Your task to perform on an android device: Search for sushi restaurants on Maps Image 0: 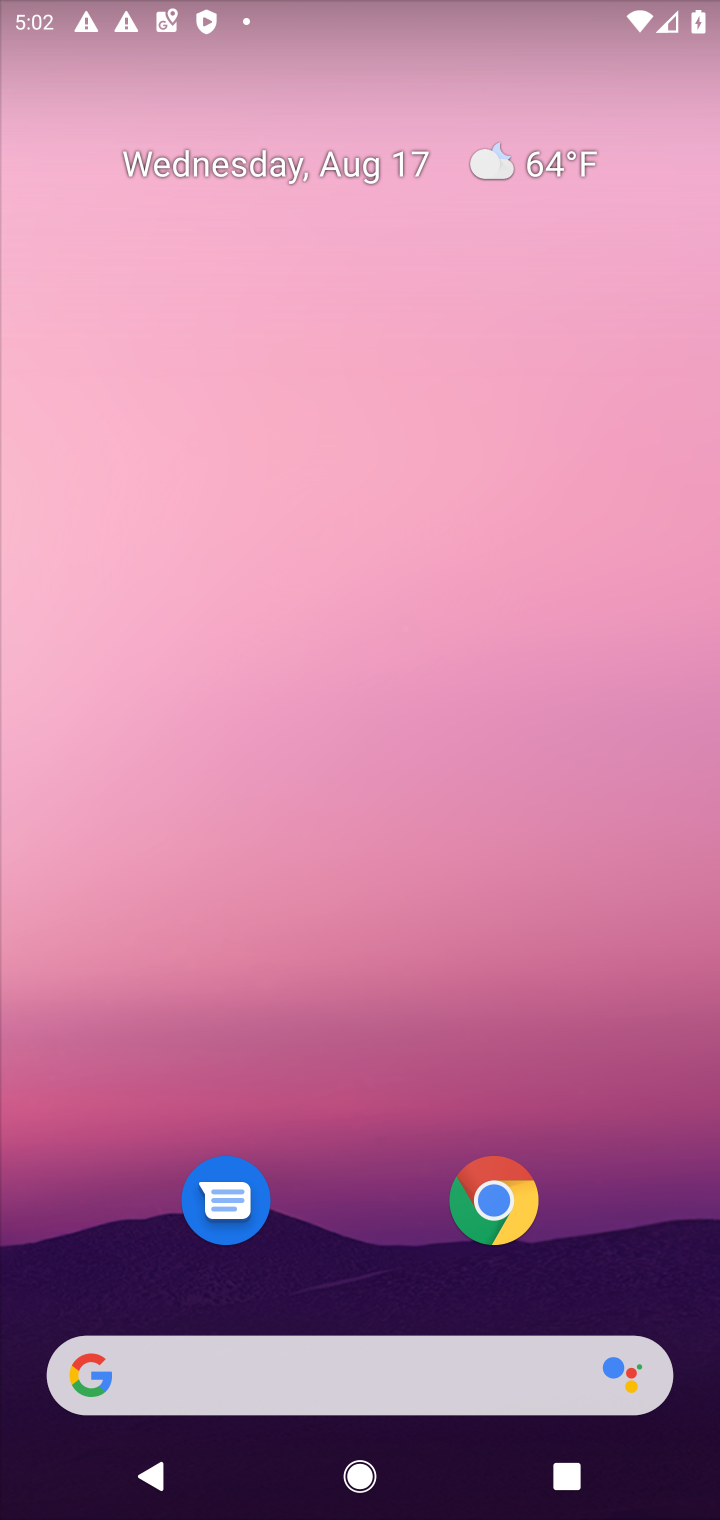
Step 0: press home button
Your task to perform on an android device: Search for sushi restaurants on Maps Image 1: 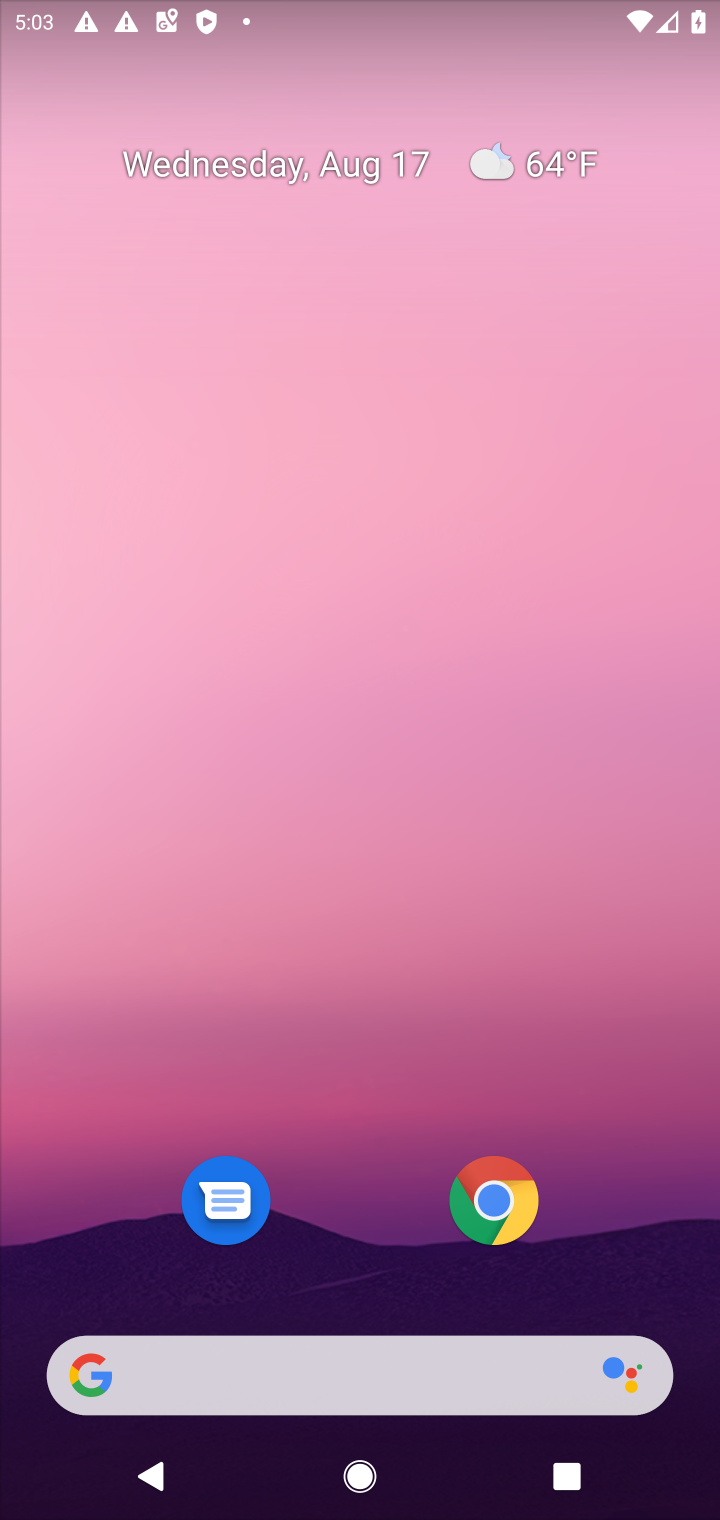
Step 1: drag from (339, 1293) to (350, 201)
Your task to perform on an android device: Search for sushi restaurants on Maps Image 2: 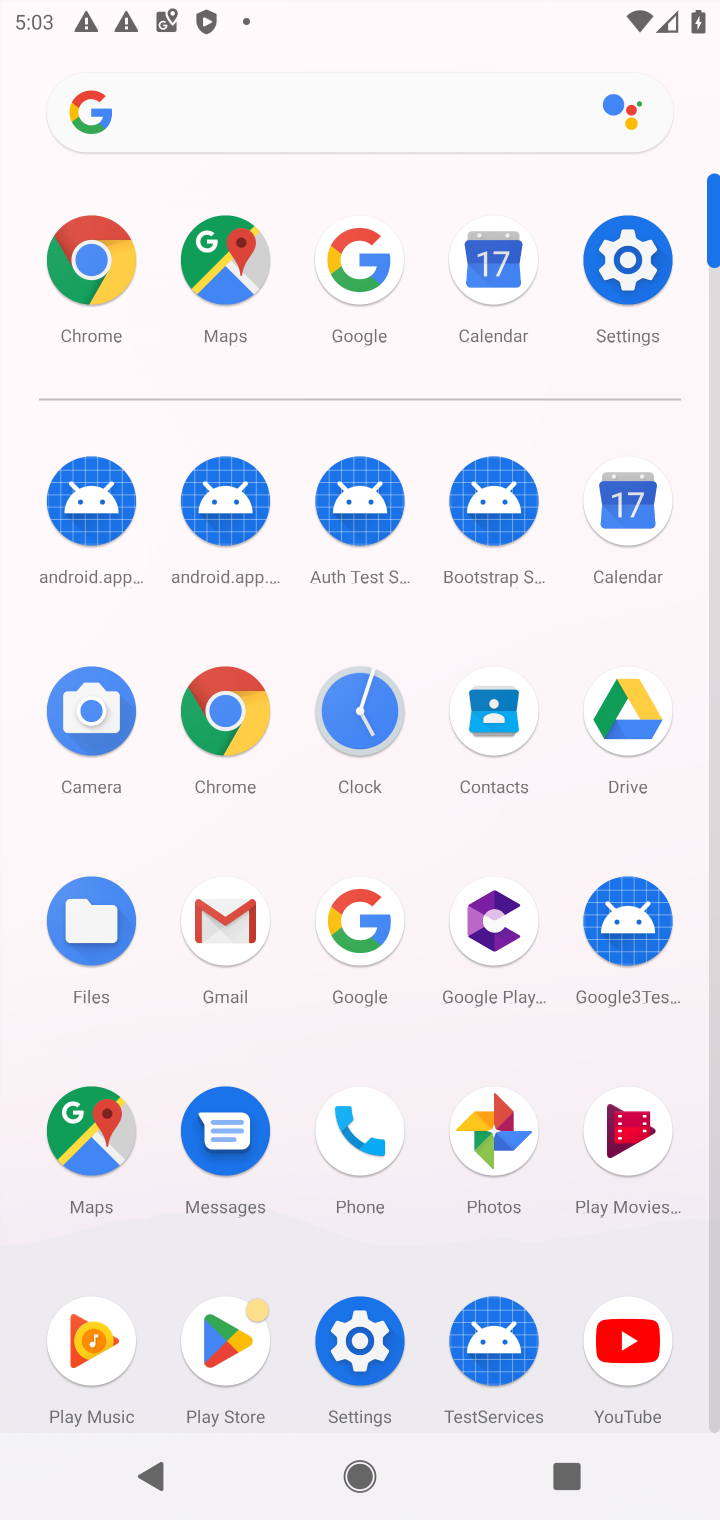
Step 2: click (66, 1134)
Your task to perform on an android device: Search for sushi restaurants on Maps Image 3: 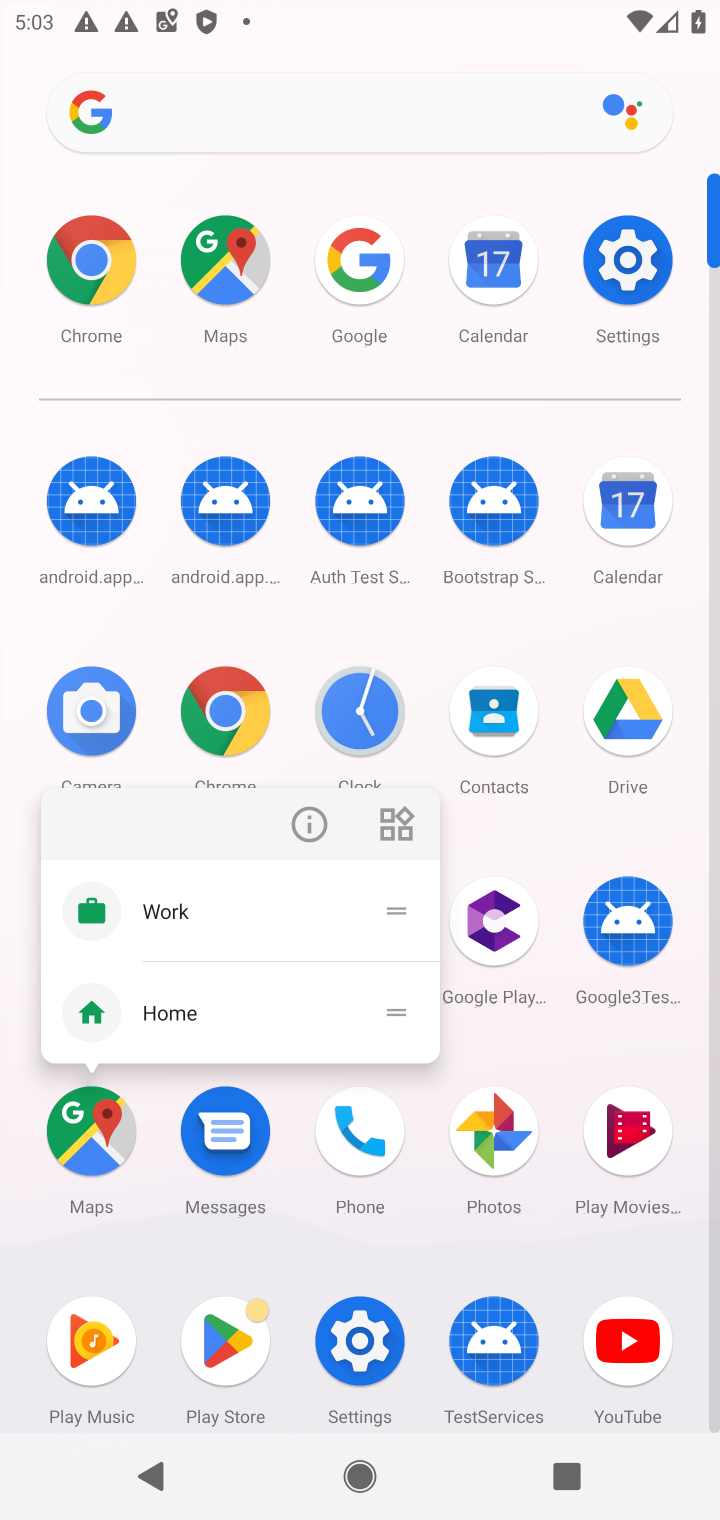
Step 3: click (83, 1128)
Your task to perform on an android device: Search for sushi restaurants on Maps Image 4: 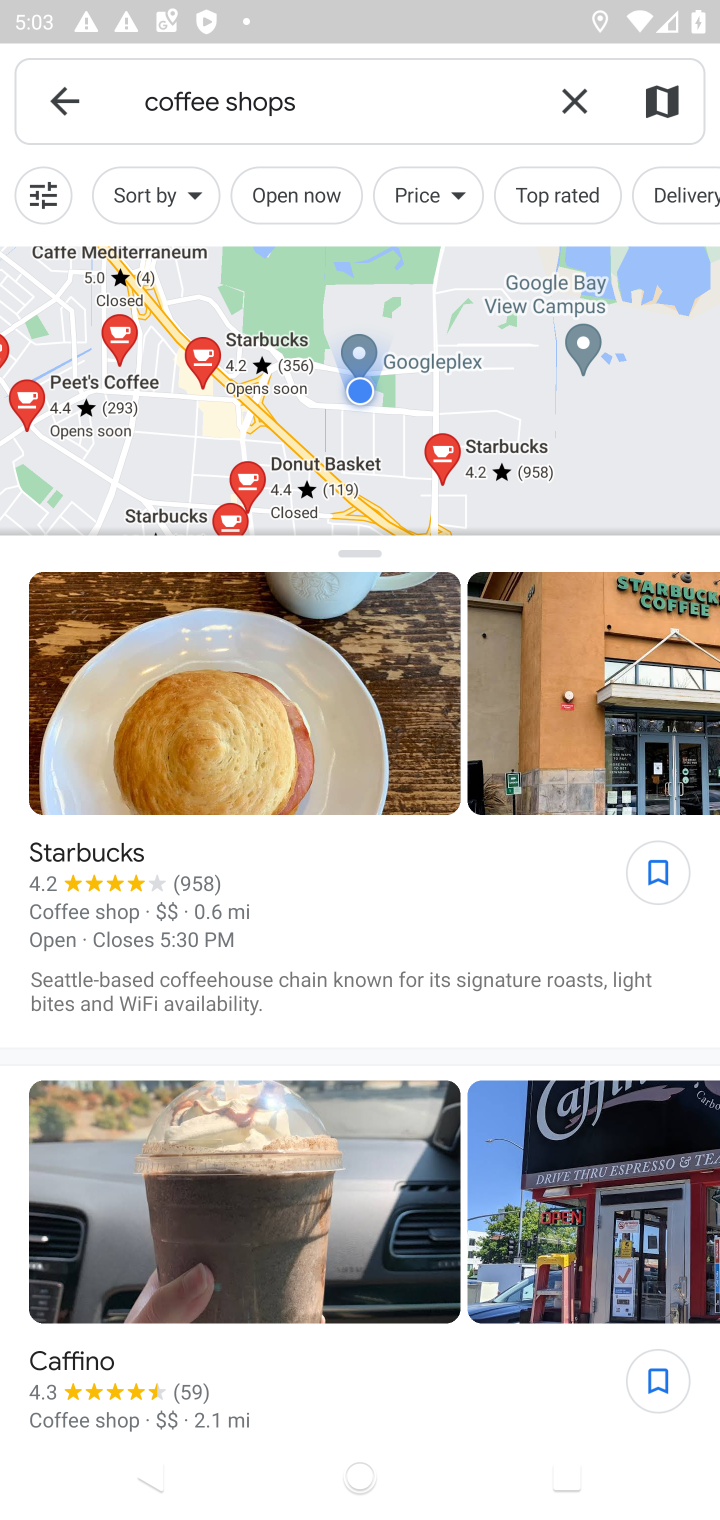
Step 4: click (575, 94)
Your task to perform on an android device: Search for sushi restaurants on Maps Image 5: 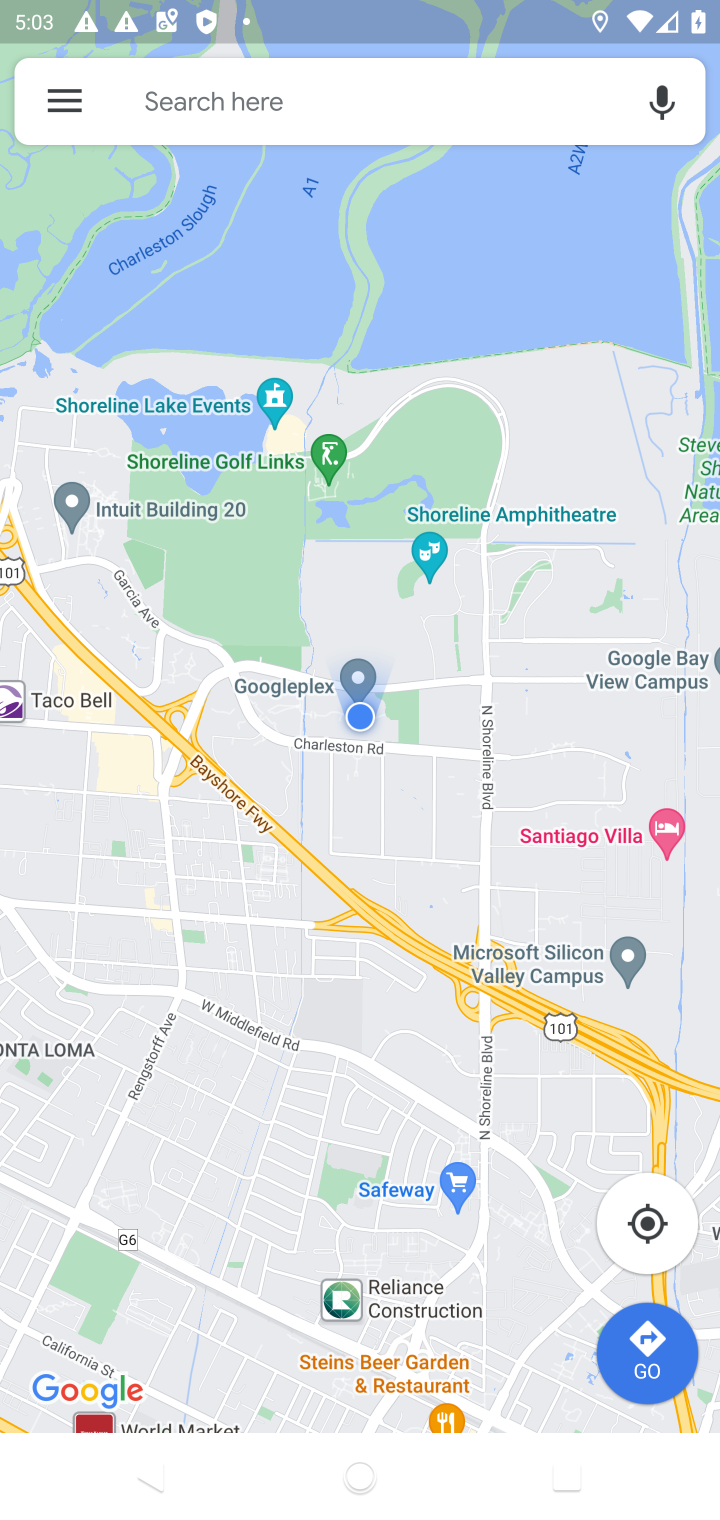
Step 5: click (278, 107)
Your task to perform on an android device: Search for sushi restaurants on Maps Image 6: 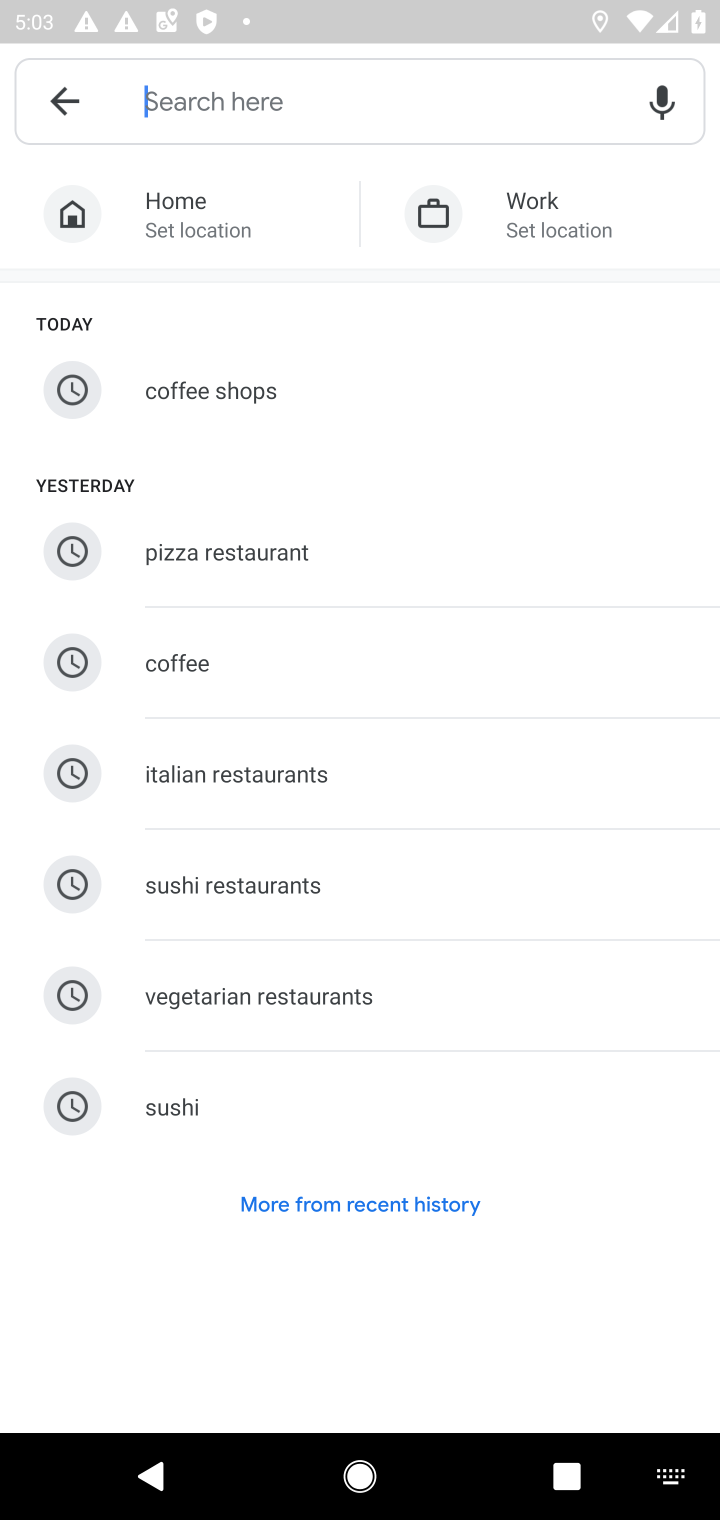
Step 6: type "sushi restaurants"
Your task to perform on an android device: Search for sushi restaurants on Maps Image 7: 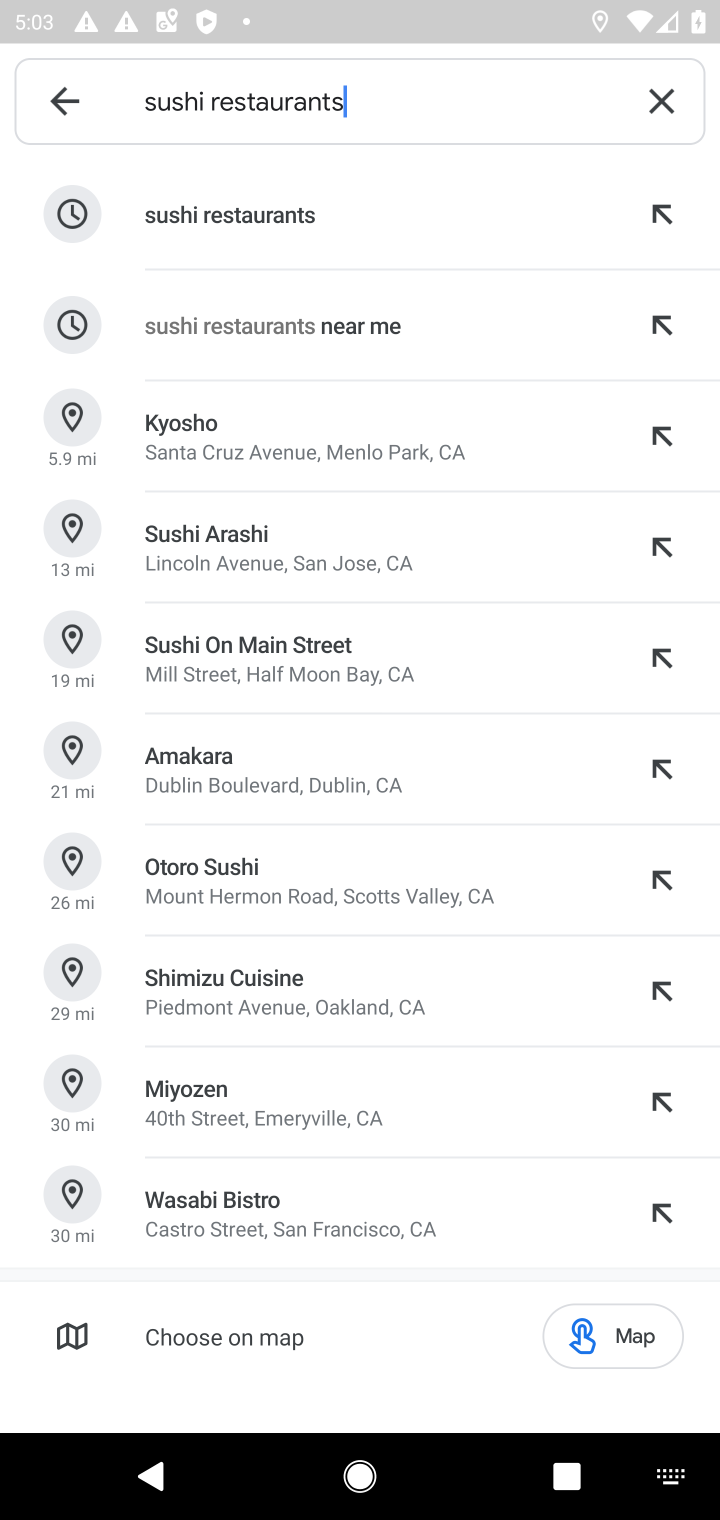
Step 7: click (283, 201)
Your task to perform on an android device: Search for sushi restaurants on Maps Image 8: 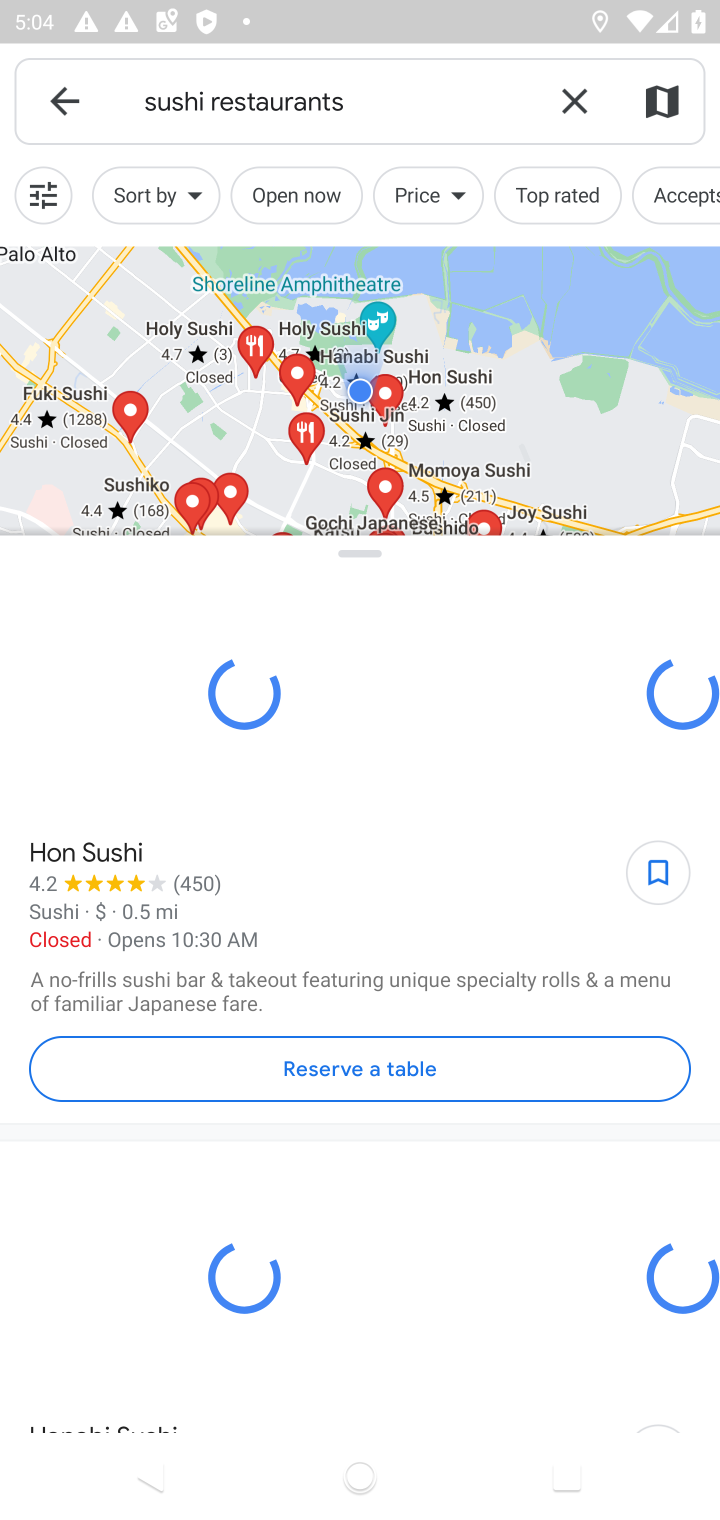
Step 8: task complete